Your task to perform on an android device: What's the weather today? Image 0: 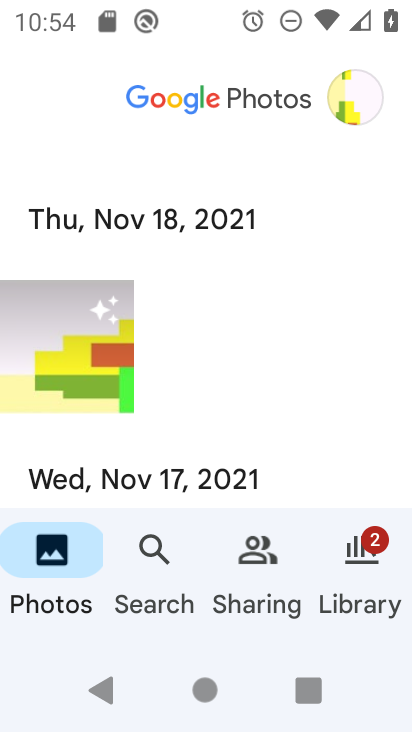
Step 0: press home button
Your task to perform on an android device: What's the weather today? Image 1: 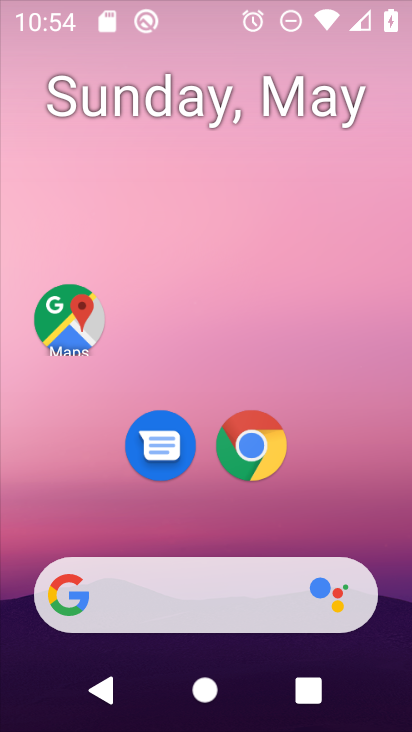
Step 1: drag from (213, 450) to (193, 173)
Your task to perform on an android device: What's the weather today? Image 2: 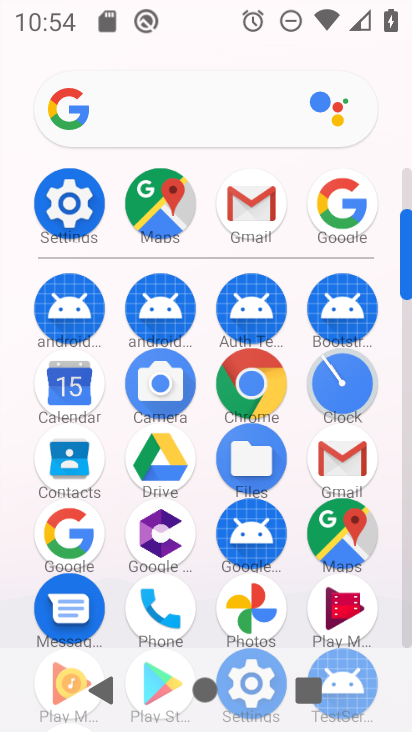
Step 2: drag from (175, 444) to (190, 359)
Your task to perform on an android device: What's the weather today? Image 3: 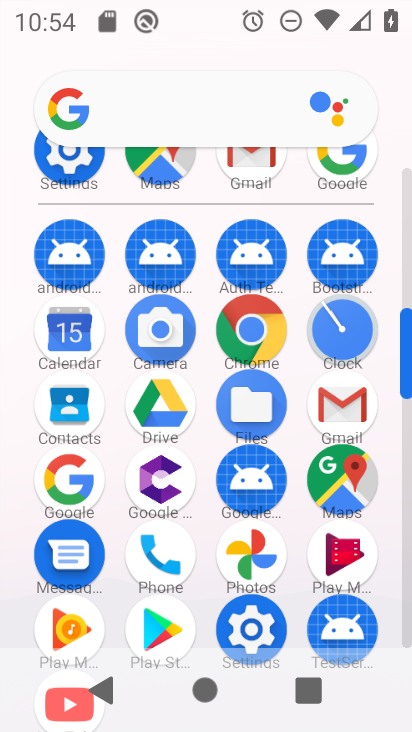
Step 3: drag from (187, 339) to (200, 469)
Your task to perform on an android device: What's the weather today? Image 4: 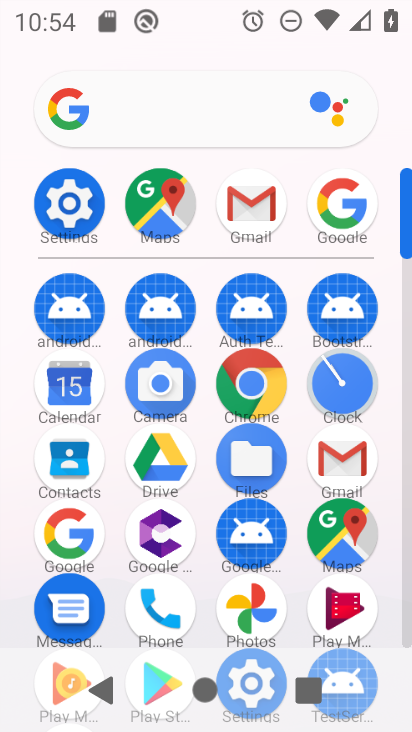
Step 4: click (76, 545)
Your task to perform on an android device: What's the weather today? Image 5: 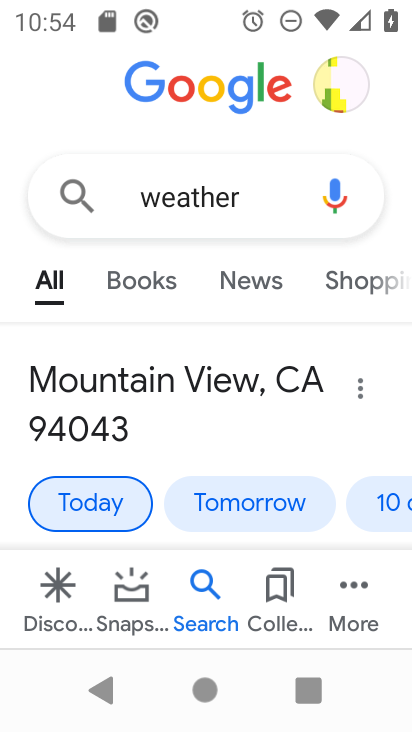
Step 5: task complete